Your task to perform on an android device: change the clock display to analog Image 0: 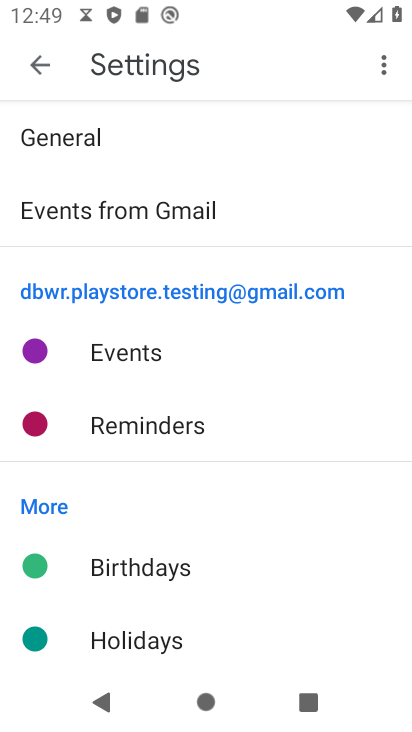
Step 0: press home button
Your task to perform on an android device: change the clock display to analog Image 1: 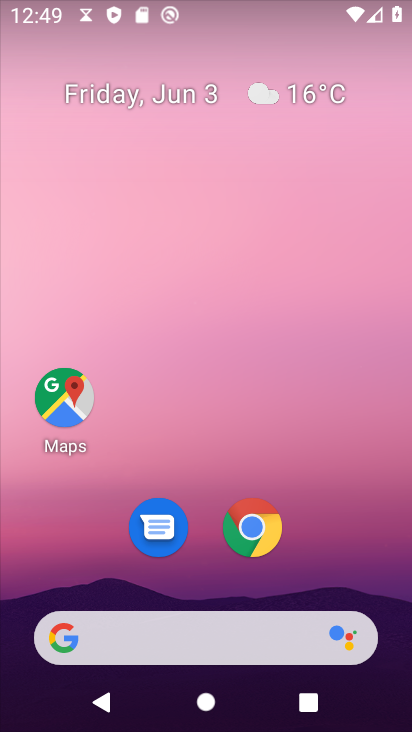
Step 1: drag from (319, 567) to (278, 150)
Your task to perform on an android device: change the clock display to analog Image 2: 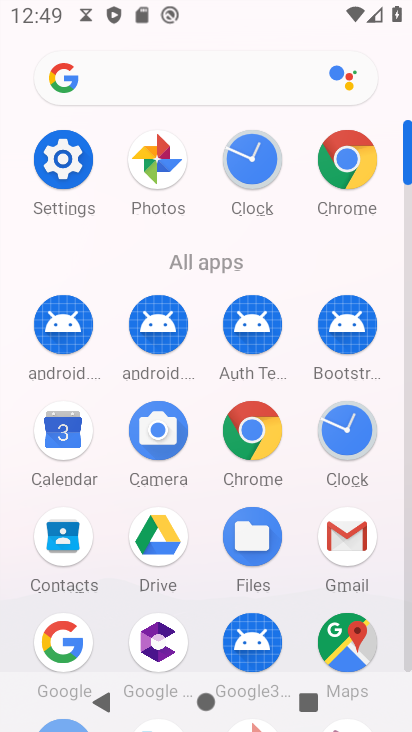
Step 2: click (240, 173)
Your task to perform on an android device: change the clock display to analog Image 3: 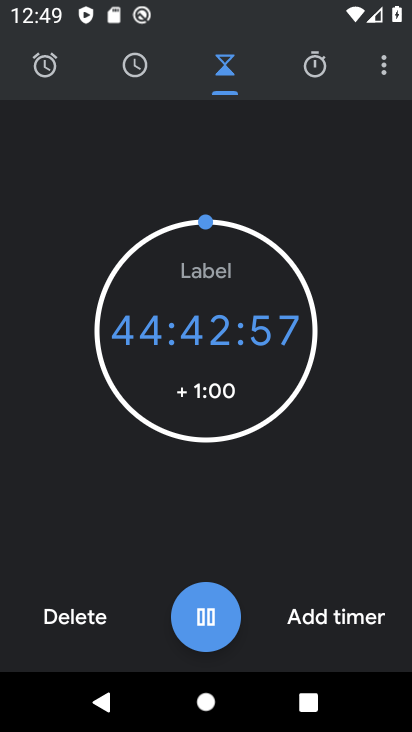
Step 3: click (374, 76)
Your task to perform on an android device: change the clock display to analog Image 4: 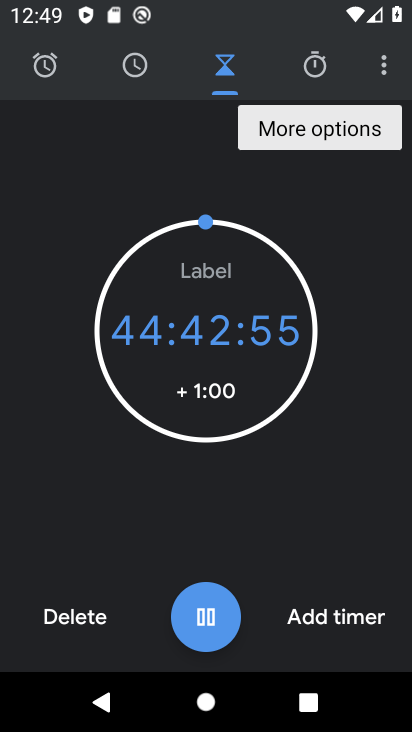
Step 4: click (376, 75)
Your task to perform on an android device: change the clock display to analog Image 5: 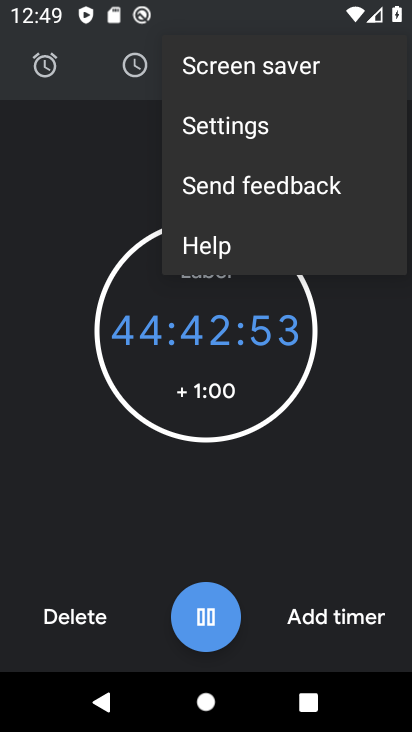
Step 5: click (282, 141)
Your task to perform on an android device: change the clock display to analog Image 6: 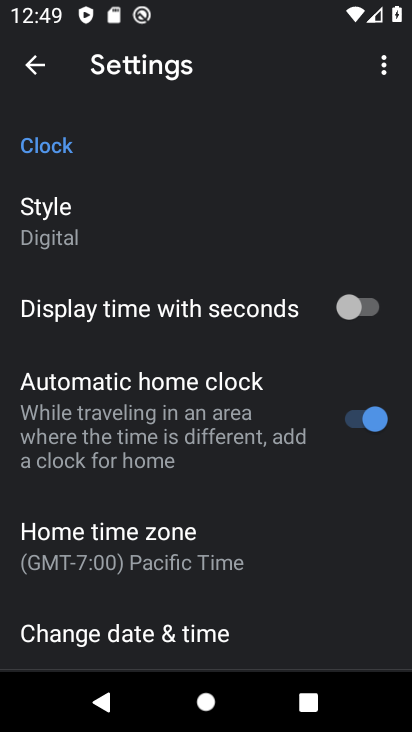
Step 6: click (89, 239)
Your task to perform on an android device: change the clock display to analog Image 7: 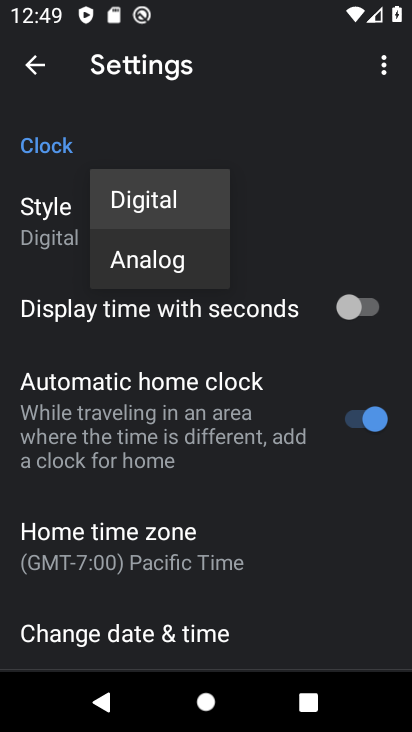
Step 7: click (118, 271)
Your task to perform on an android device: change the clock display to analog Image 8: 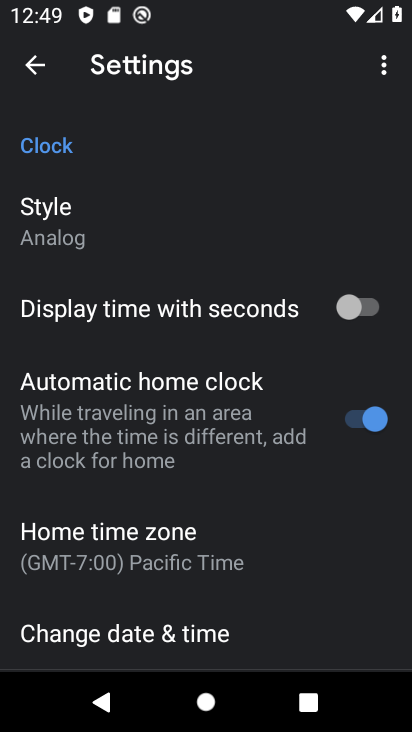
Step 8: task complete